Your task to perform on an android device: Do I have any events this weekend? Image 0: 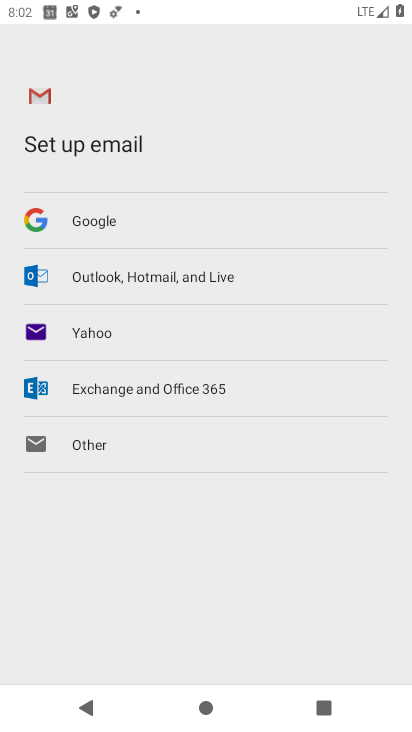
Step 0: press home button
Your task to perform on an android device: Do I have any events this weekend? Image 1: 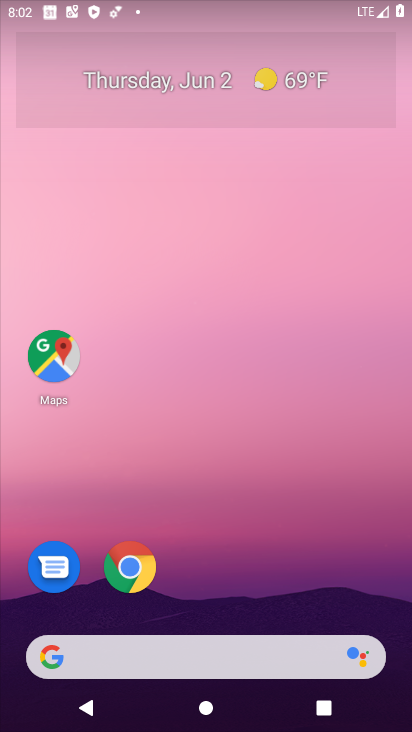
Step 1: drag from (297, 609) to (180, 224)
Your task to perform on an android device: Do I have any events this weekend? Image 2: 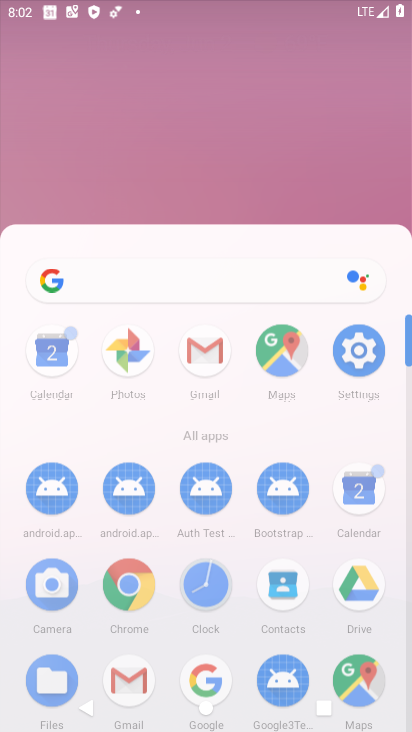
Step 2: click (168, 191)
Your task to perform on an android device: Do I have any events this weekend? Image 3: 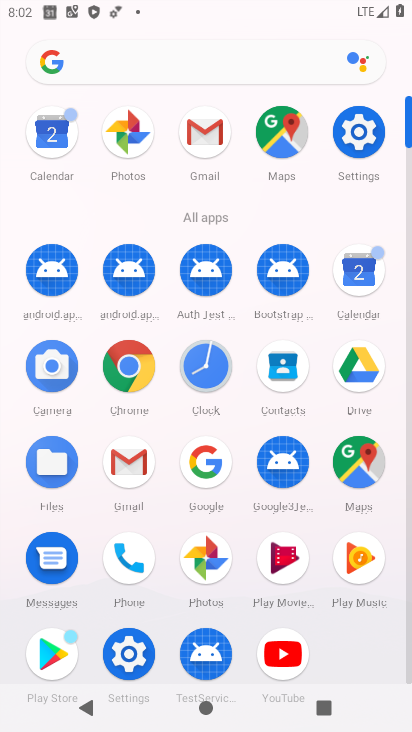
Step 3: click (51, 146)
Your task to perform on an android device: Do I have any events this weekend? Image 4: 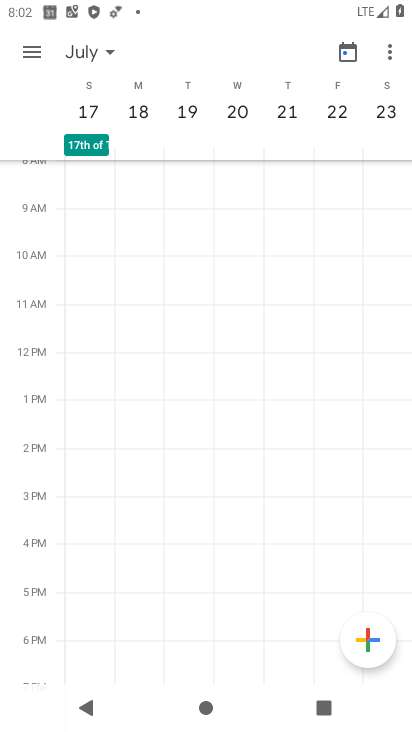
Step 4: click (91, 55)
Your task to perform on an android device: Do I have any events this weekend? Image 5: 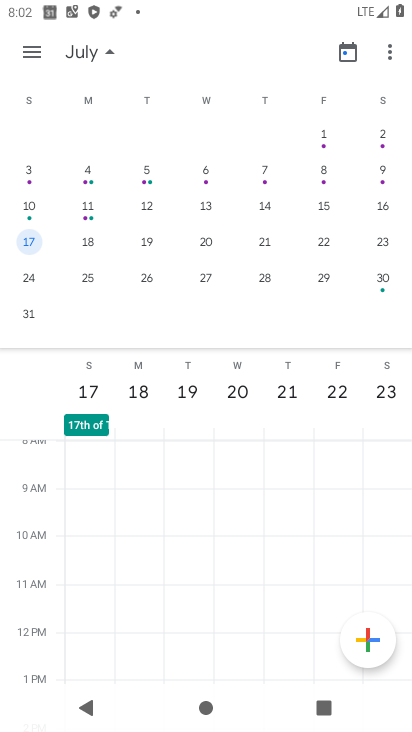
Step 5: click (38, 199)
Your task to perform on an android device: Do I have any events this weekend? Image 6: 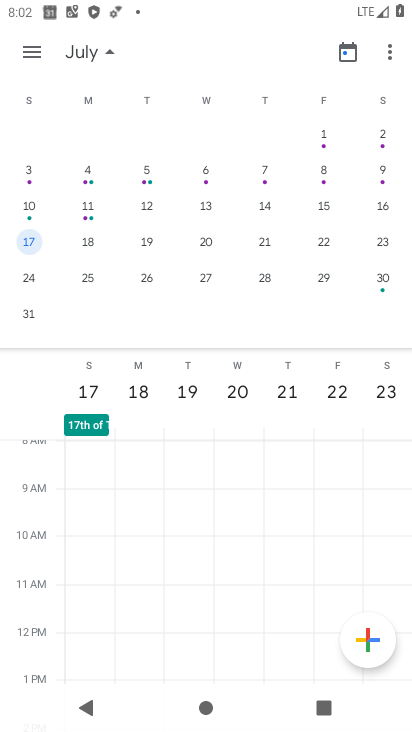
Step 6: drag from (40, 199) to (342, 198)
Your task to perform on an android device: Do I have any events this weekend? Image 7: 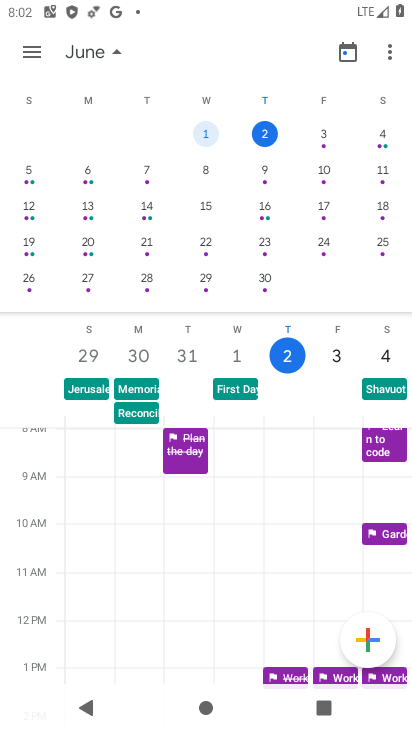
Step 7: click (386, 130)
Your task to perform on an android device: Do I have any events this weekend? Image 8: 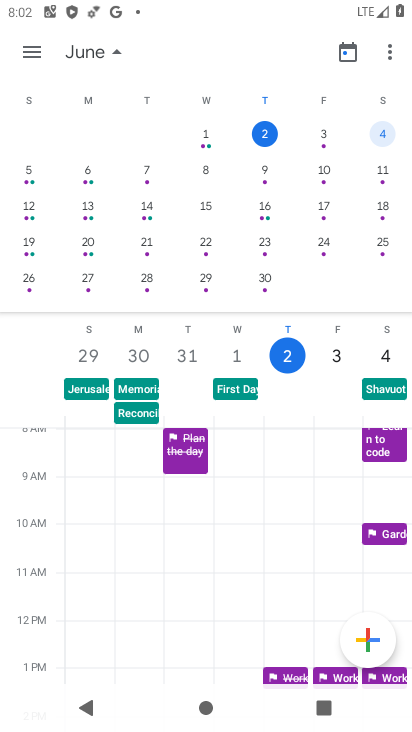
Step 8: click (22, 42)
Your task to perform on an android device: Do I have any events this weekend? Image 9: 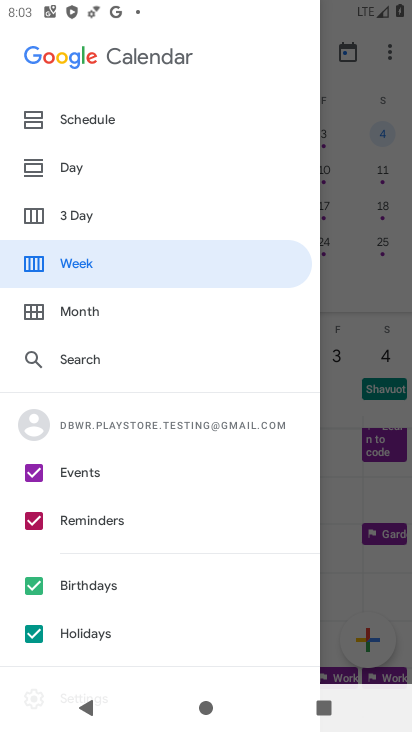
Step 9: click (59, 205)
Your task to perform on an android device: Do I have any events this weekend? Image 10: 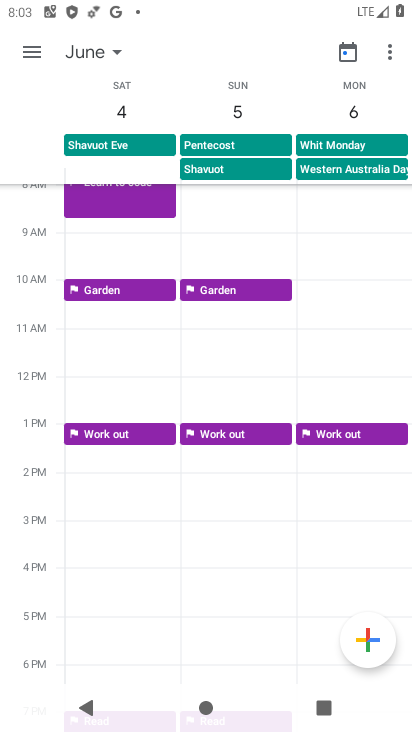
Step 10: task complete